Your task to perform on an android device: Toggle the flashlight Image 0: 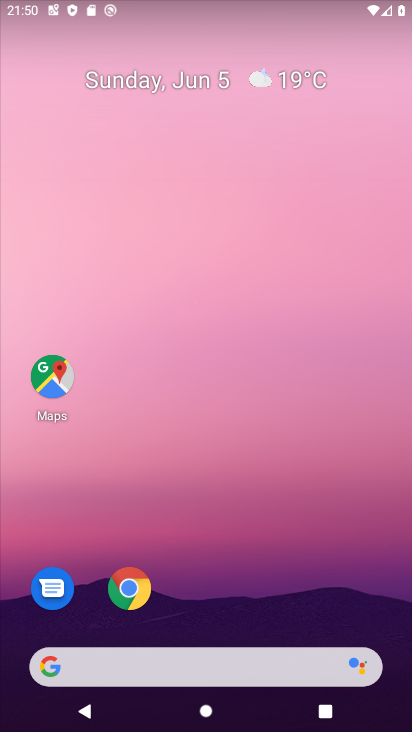
Step 0: drag from (238, 4) to (228, 385)
Your task to perform on an android device: Toggle the flashlight Image 1: 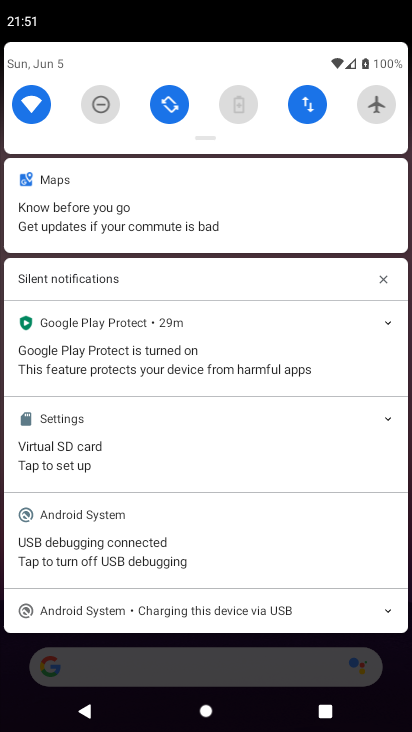
Step 1: drag from (208, 58) to (198, 357)
Your task to perform on an android device: Toggle the flashlight Image 2: 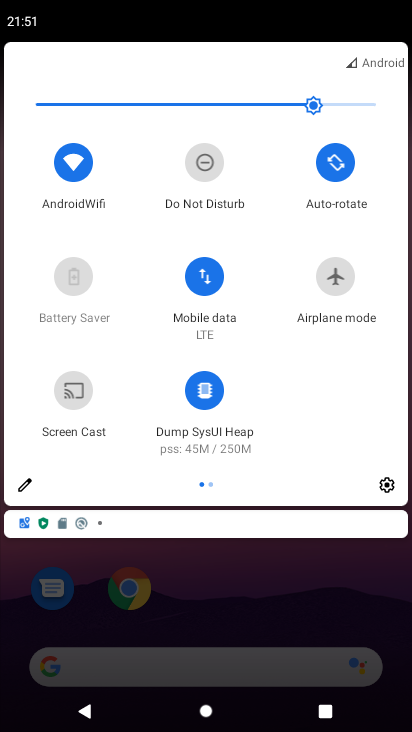
Step 2: click (20, 484)
Your task to perform on an android device: Toggle the flashlight Image 3: 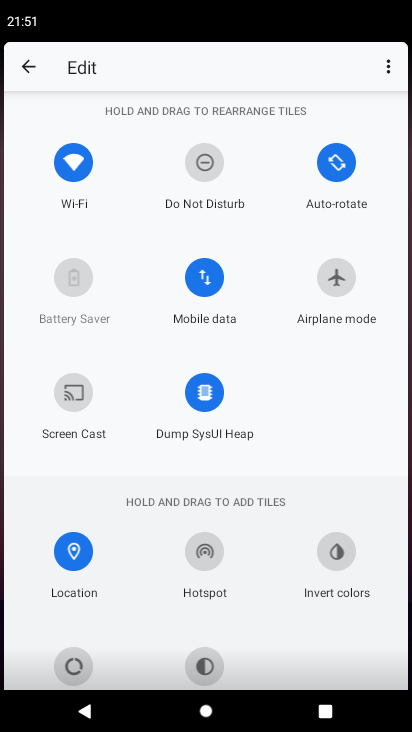
Step 3: task complete